Your task to perform on an android device: Search for bose quietcomfort 35 on target.com, select the first entry, add it to the cart, then select checkout. Image 0: 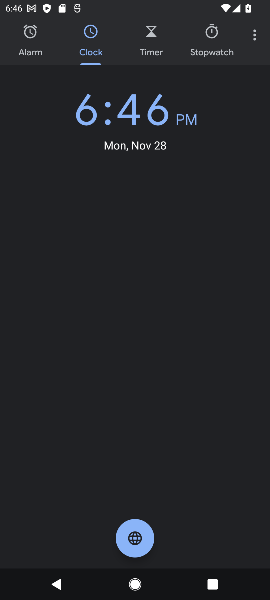
Step 0: press home button
Your task to perform on an android device: Search for bose quietcomfort 35 on target.com, select the first entry, add it to the cart, then select checkout. Image 1: 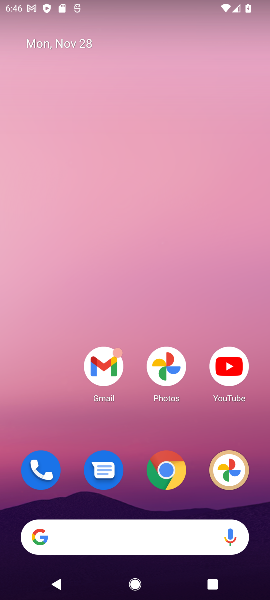
Step 1: click (173, 534)
Your task to perform on an android device: Search for bose quietcomfort 35 on target.com, select the first entry, add it to the cart, then select checkout. Image 2: 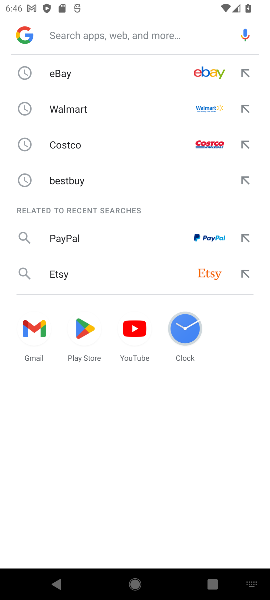
Step 2: type " target.com,"
Your task to perform on an android device: Search for bose quietcomfort 35 on target.com, select the first entry, add it to the cart, then select checkout. Image 3: 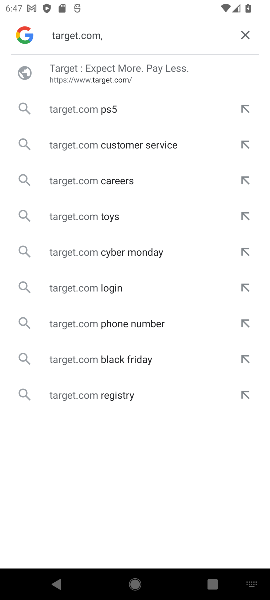
Step 3: click (97, 84)
Your task to perform on an android device: Search for bose quietcomfort 35 on target.com, select the first entry, add it to the cart, then select checkout. Image 4: 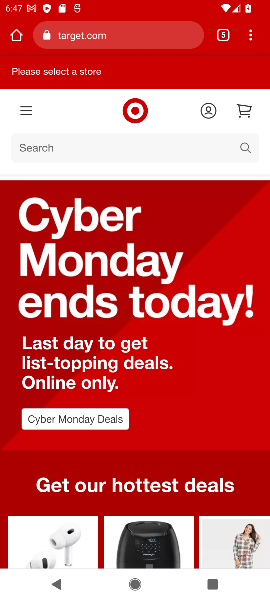
Step 4: click (204, 146)
Your task to perform on an android device: Search for bose quietcomfort 35 on target.com, select the first entry, add it to the cart, then select checkout. Image 5: 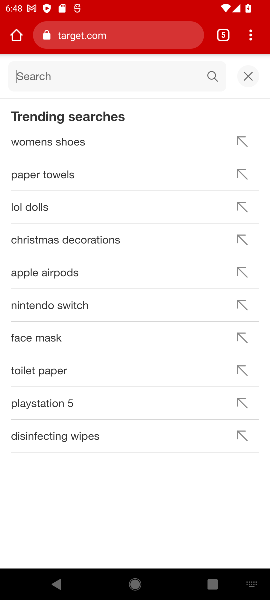
Step 5: type "quietcomfort 35"
Your task to perform on an android device: Search for bose quietcomfort 35 on target.com, select the first entry, add it to the cart, then select checkout. Image 6: 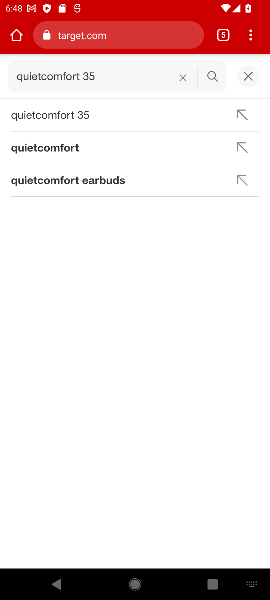
Step 6: click (52, 117)
Your task to perform on an android device: Search for bose quietcomfort 35 on target.com, select the first entry, add it to the cart, then select checkout. Image 7: 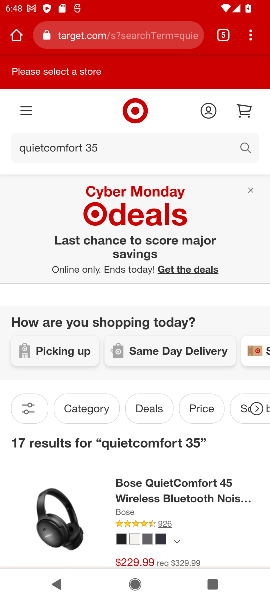
Step 7: drag from (98, 457) to (120, 336)
Your task to perform on an android device: Search for bose quietcomfort 35 on target.com, select the first entry, add it to the cart, then select checkout. Image 8: 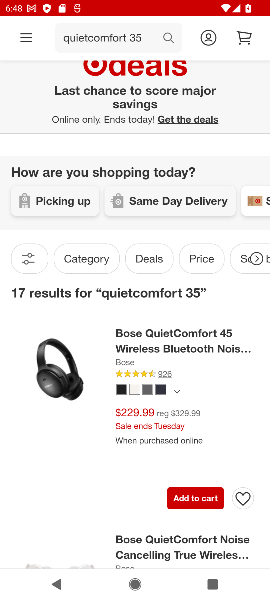
Step 8: click (199, 497)
Your task to perform on an android device: Search for bose quietcomfort 35 on target.com, select the first entry, add it to the cart, then select checkout. Image 9: 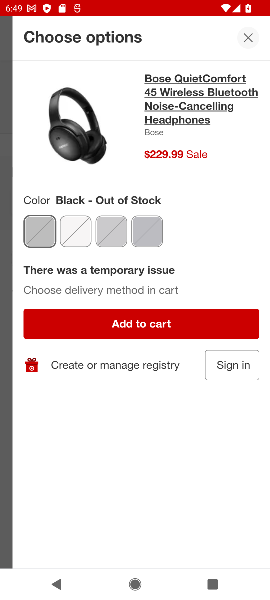
Step 9: click (135, 331)
Your task to perform on an android device: Search for bose quietcomfort 35 on target.com, select the first entry, add it to the cart, then select checkout. Image 10: 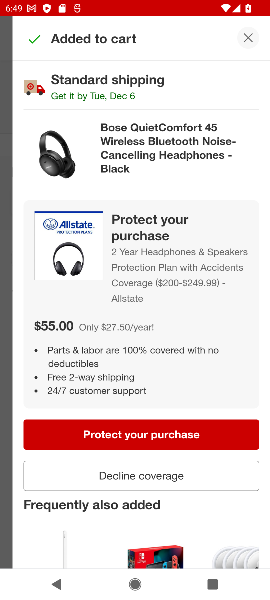
Step 10: click (132, 483)
Your task to perform on an android device: Search for bose quietcomfort 35 on target.com, select the first entry, add it to the cart, then select checkout. Image 11: 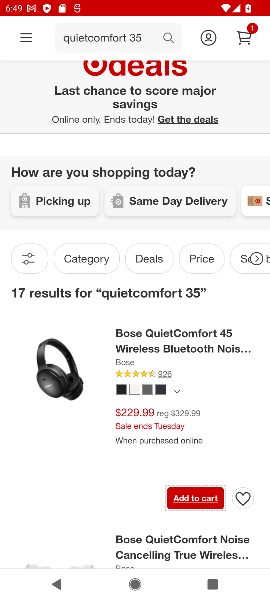
Step 11: click (242, 30)
Your task to perform on an android device: Search for bose quietcomfort 35 on target.com, select the first entry, add it to the cart, then select checkout. Image 12: 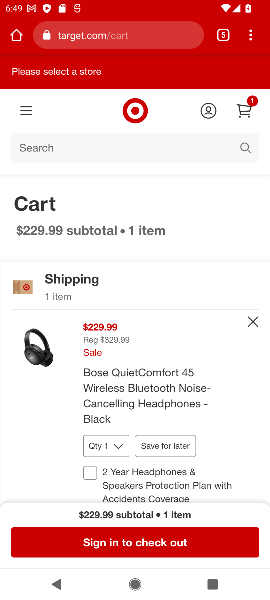
Step 12: click (137, 543)
Your task to perform on an android device: Search for bose quietcomfort 35 on target.com, select the first entry, add it to the cart, then select checkout. Image 13: 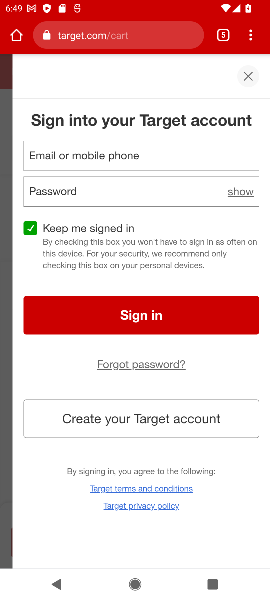
Step 13: task complete